Your task to perform on an android device: check the backup settings in the google photos Image 0: 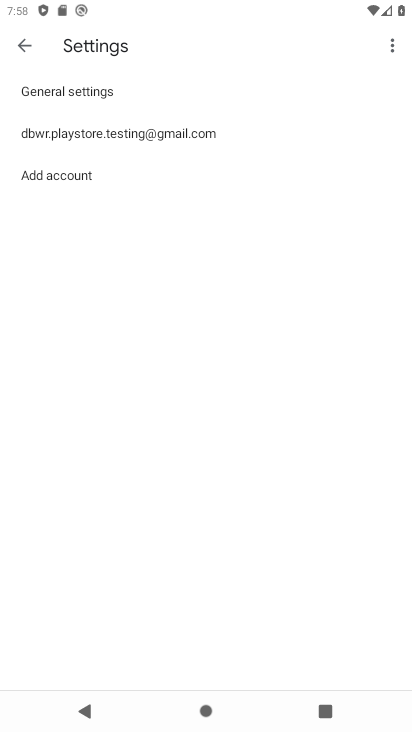
Step 0: press home button
Your task to perform on an android device: check the backup settings in the google photos Image 1: 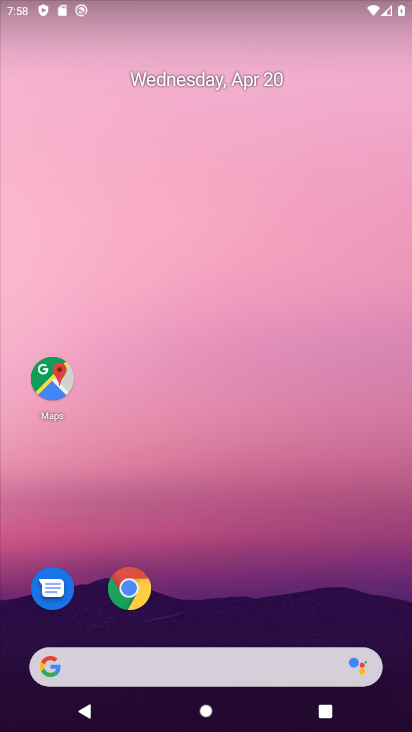
Step 1: drag from (271, 532) to (292, 300)
Your task to perform on an android device: check the backup settings in the google photos Image 2: 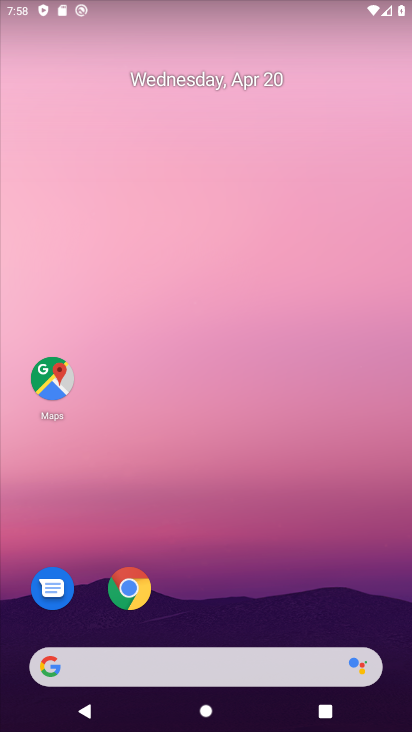
Step 2: drag from (215, 512) to (214, 247)
Your task to perform on an android device: check the backup settings in the google photos Image 3: 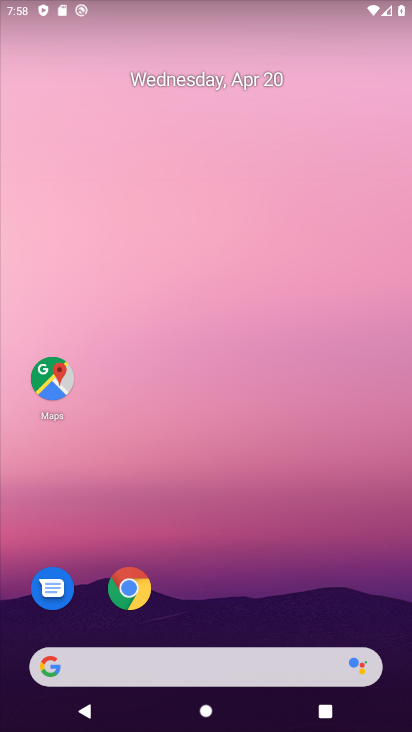
Step 3: drag from (232, 540) to (221, 132)
Your task to perform on an android device: check the backup settings in the google photos Image 4: 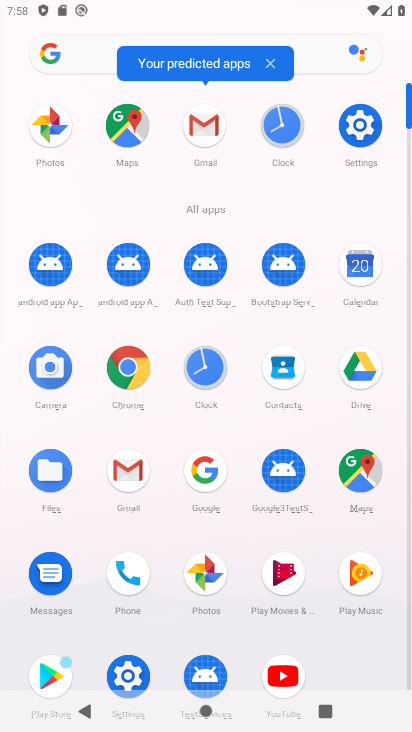
Step 4: click (208, 574)
Your task to perform on an android device: check the backup settings in the google photos Image 5: 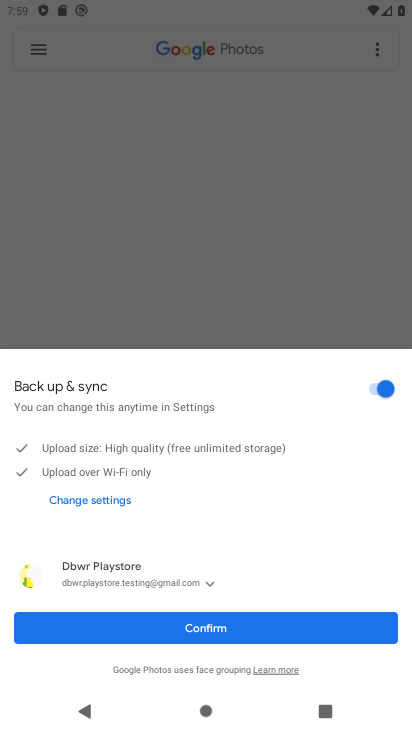
Step 5: click (239, 633)
Your task to perform on an android device: check the backup settings in the google photos Image 6: 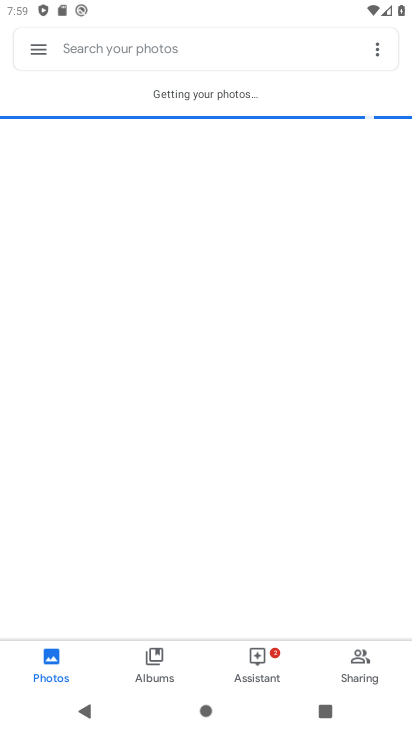
Step 6: click (43, 42)
Your task to perform on an android device: check the backup settings in the google photos Image 7: 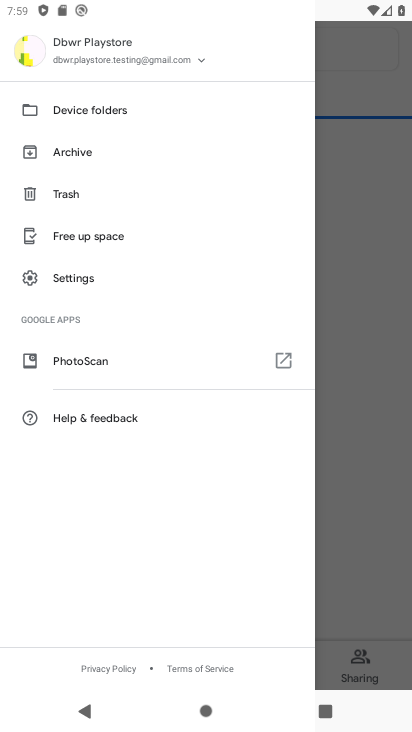
Step 7: click (106, 274)
Your task to perform on an android device: check the backup settings in the google photos Image 8: 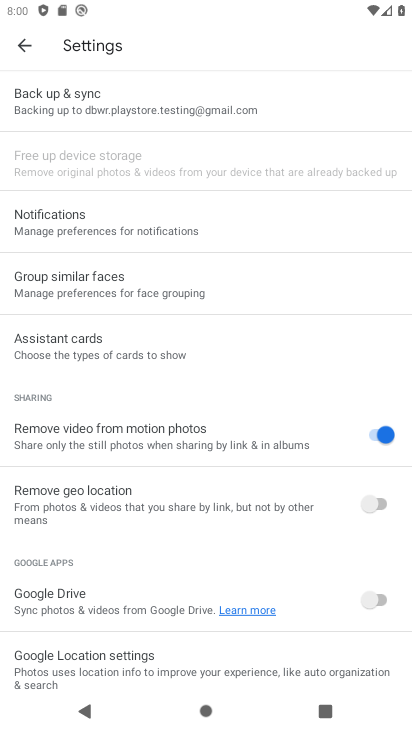
Step 8: click (198, 111)
Your task to perform on an android device: check the backup settings in the google photos Image 9: 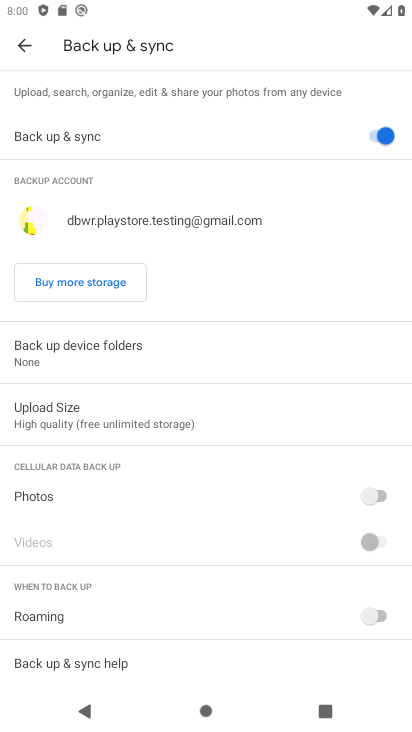
Step 9: task complete